Your task to perform on an android device: turn on sleep mode Image 0: 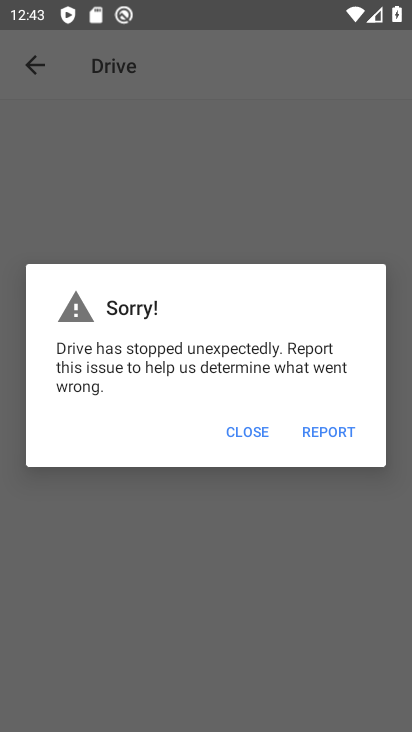
Step 0: press home button
Your task to perform on an android device: turn on sleep mode Image 1: 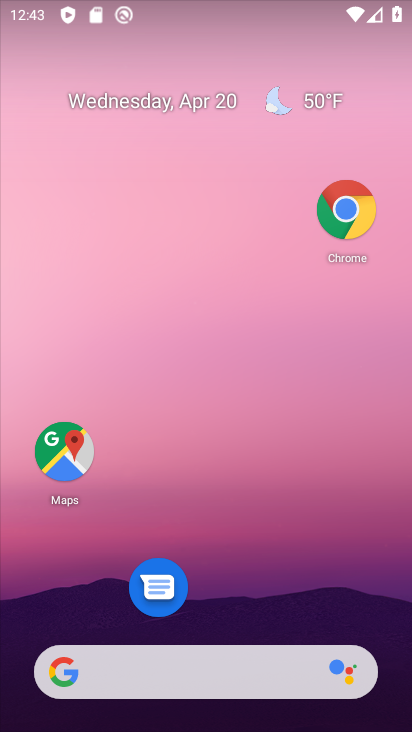
Step 1: drag from (253, 621) to (272, 350)
Your task to perform on an android device: turn on sleep mode Image 2: 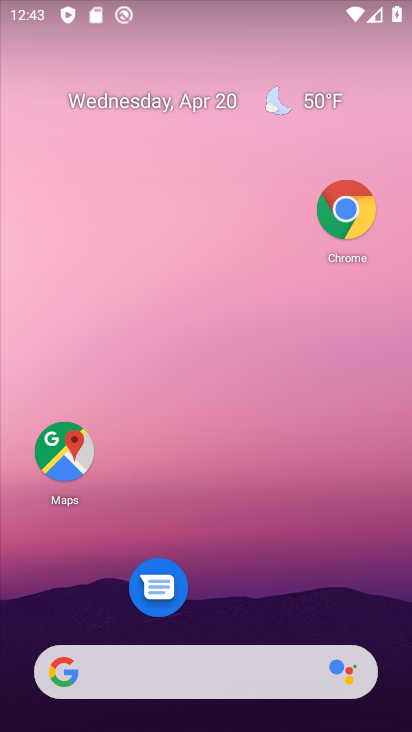
Step 2: click (257, 177)
Your task to perform on an android device: turn on sleep mode Image 3: 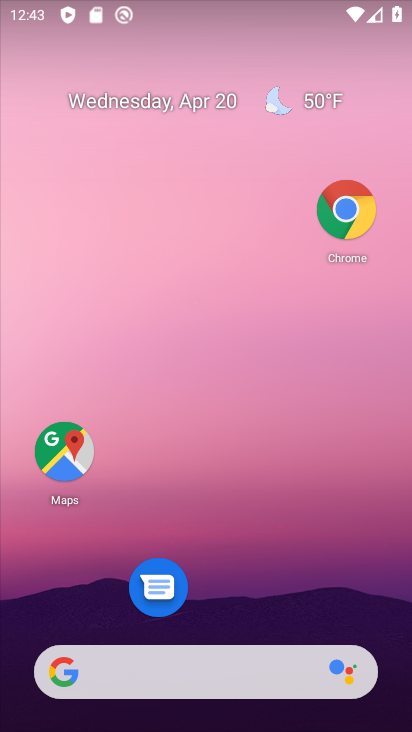
Step 3: drag from (209, 464) to (298, 3)
Your task to perform on an android device: turn on sleep mode Image 4: 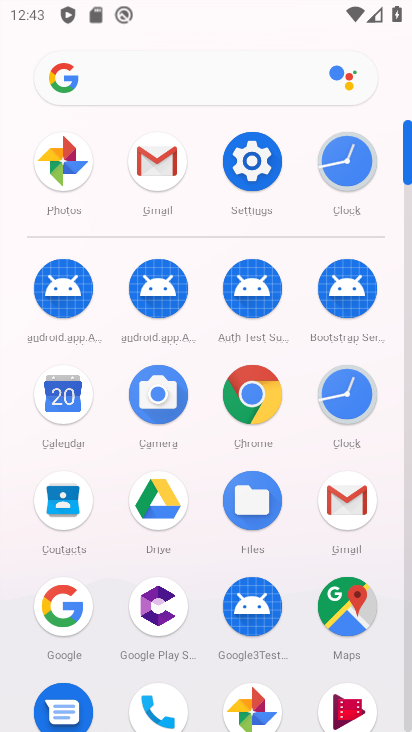
Step 4: click (270, 175)
Your task to perform on an android device: turn on sleep mode Image 5: 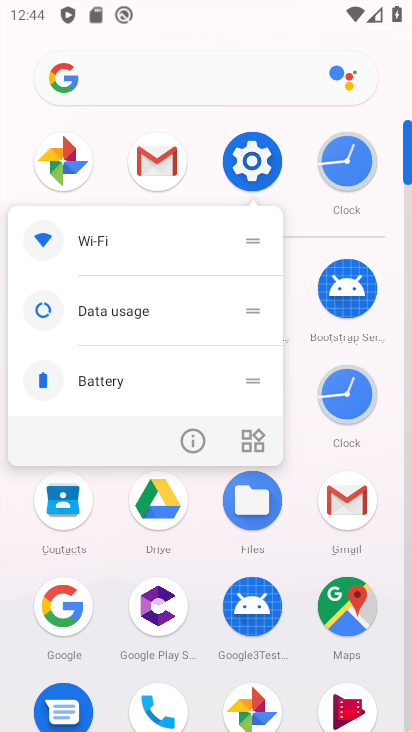
Step 5: click (271, 174)
Your task to perform on an android device: turn on sleep mode Image 6: 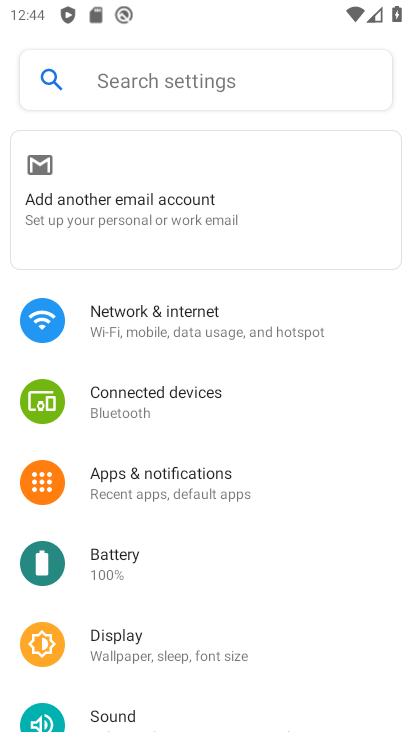
Step 6: click (208, 74)
Your task to perform on an android device: turn on sleep mode Image 7: 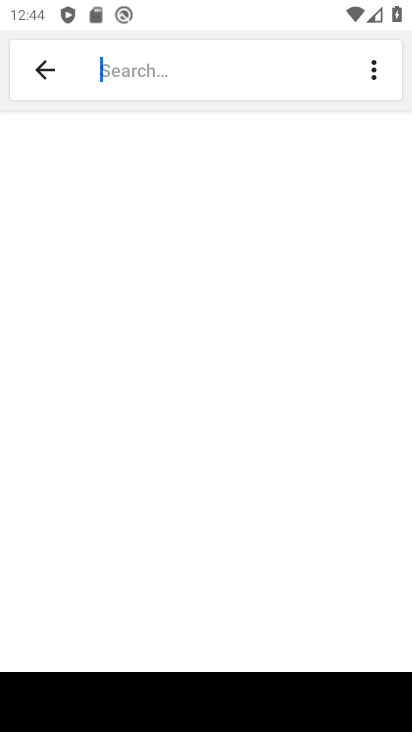
Step 7: type "sleep mode"
Your task to perform on an android device: turn on sleep mode Image 8: 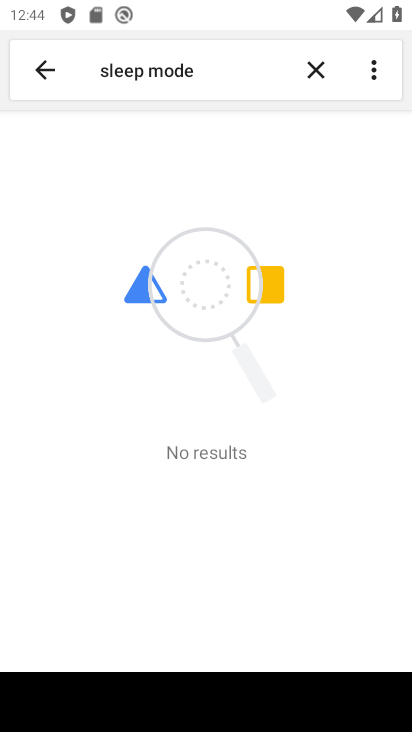
Step 8: task complete